Your task to perform on an android device: Add "logitech g pro" to the cart on target.com, then select checkout. Image 0: 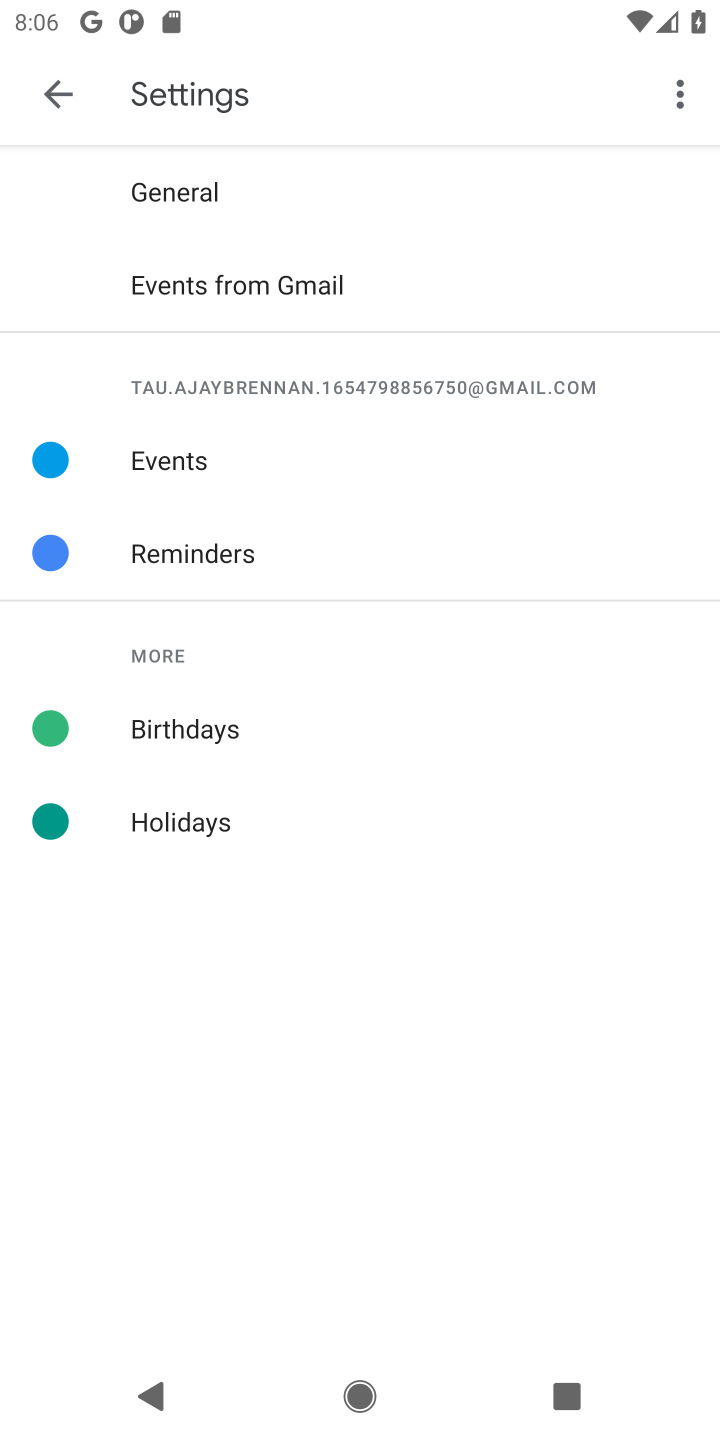
Step 0: press home button
Your task to perform on an android device: Add "logitech g pro" to the cart on target.com, then select checkout. Image 1: 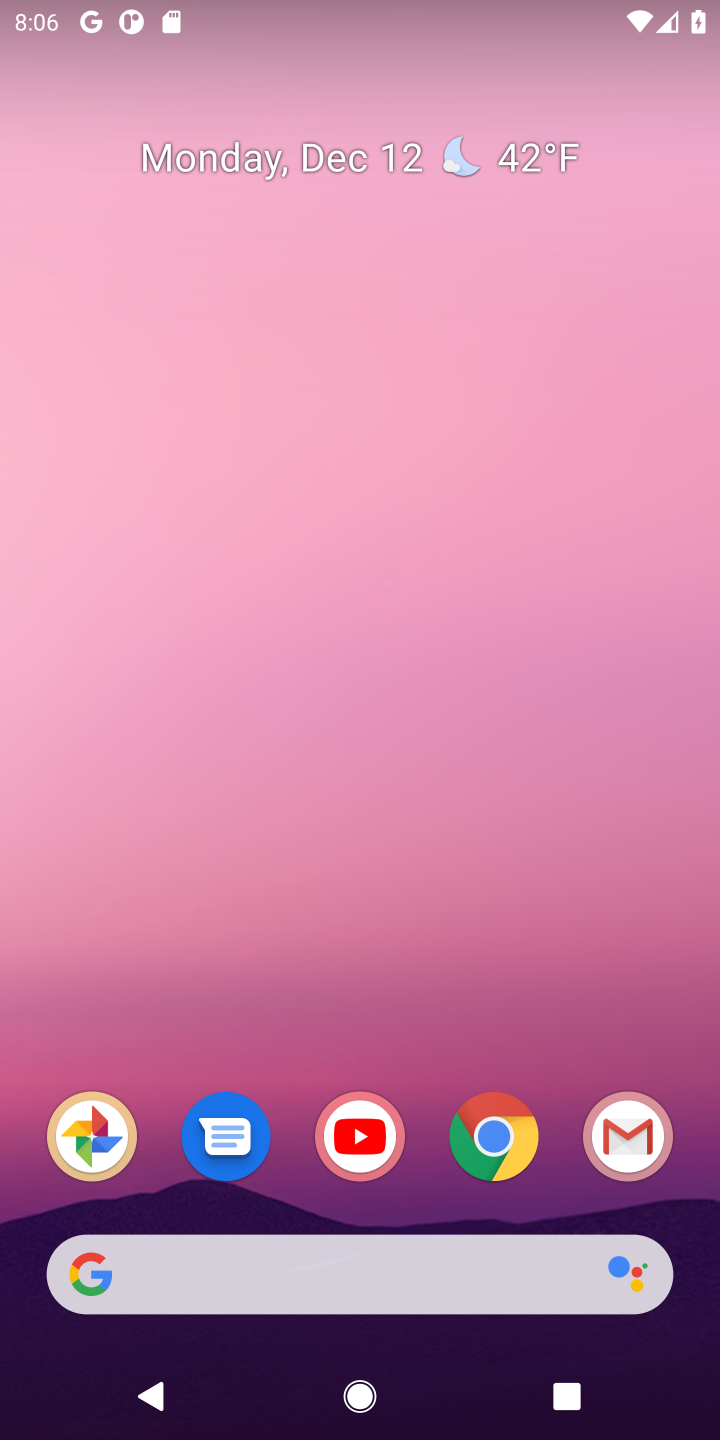
Step 1: click (502, 1144)
Your task to perform on an android device: Add "logitech g pro" to the cart on target.com, then select checkout. Image 2: 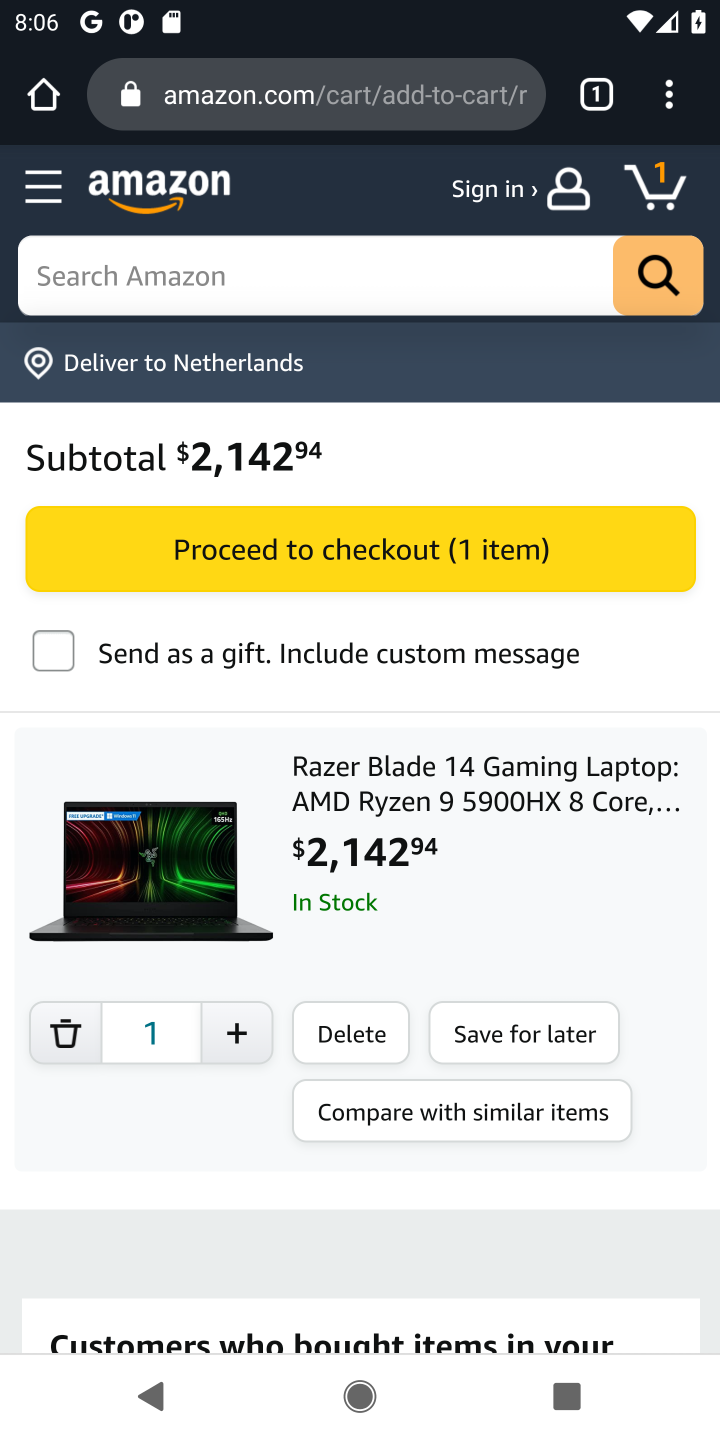
Step 2: click (262, 75)
Your task to perform on an android device: Add "logitech g pro" to the cart on target.com, then select checkout. Image 3: 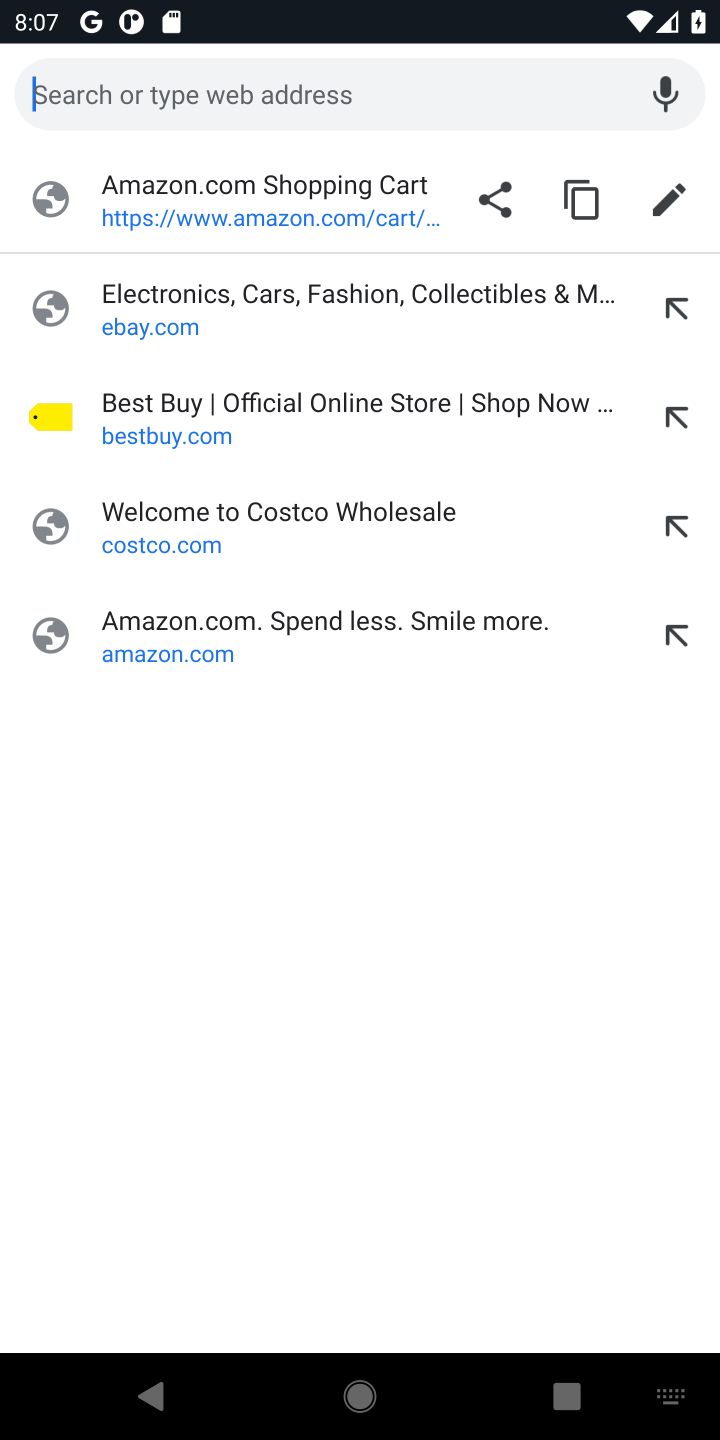
Step 3: type "target.com"
Your task to perform on an android device: Add "logitech g pro" to the cart on target.com, then select checkout. Image 4: 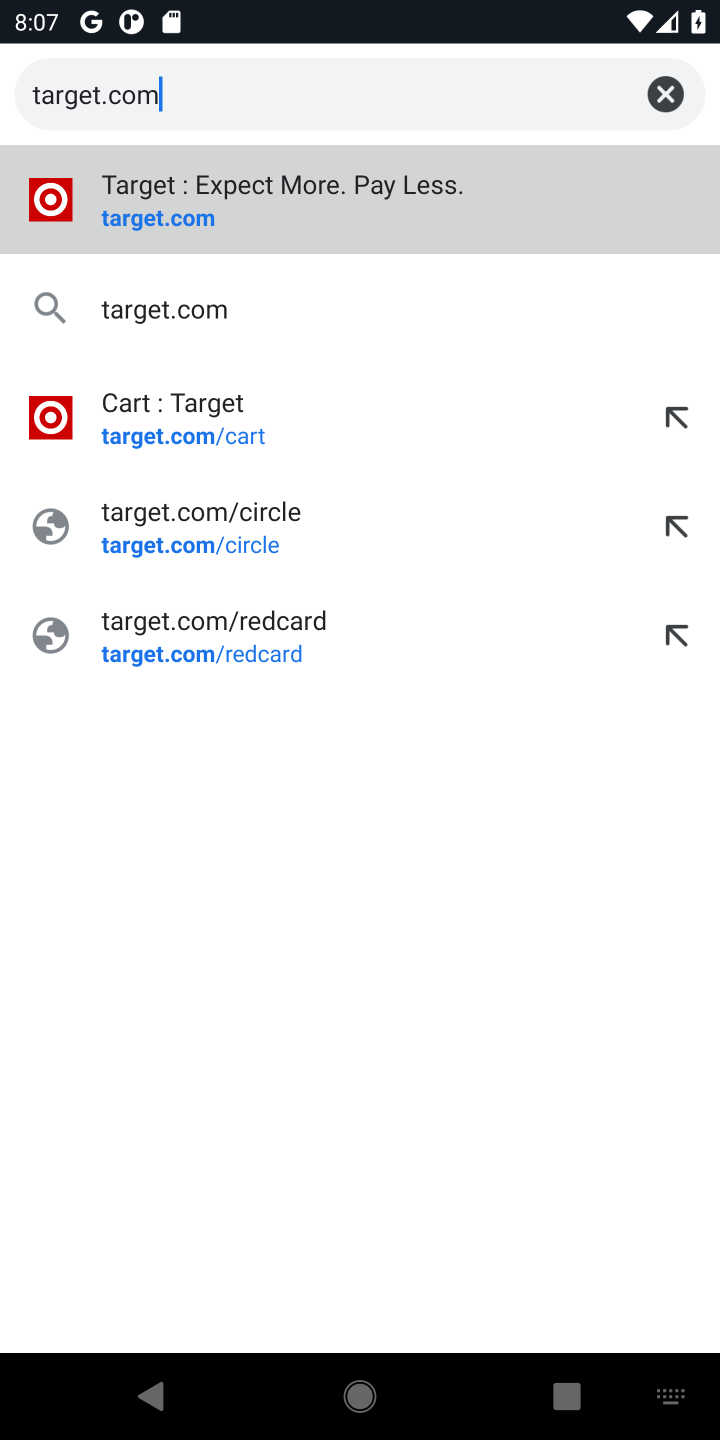
Step 4: click (134, 219)
Your task to perform on an android device: Add "logitech g pro" to the cart on target.com, then select checkout. Image 5: 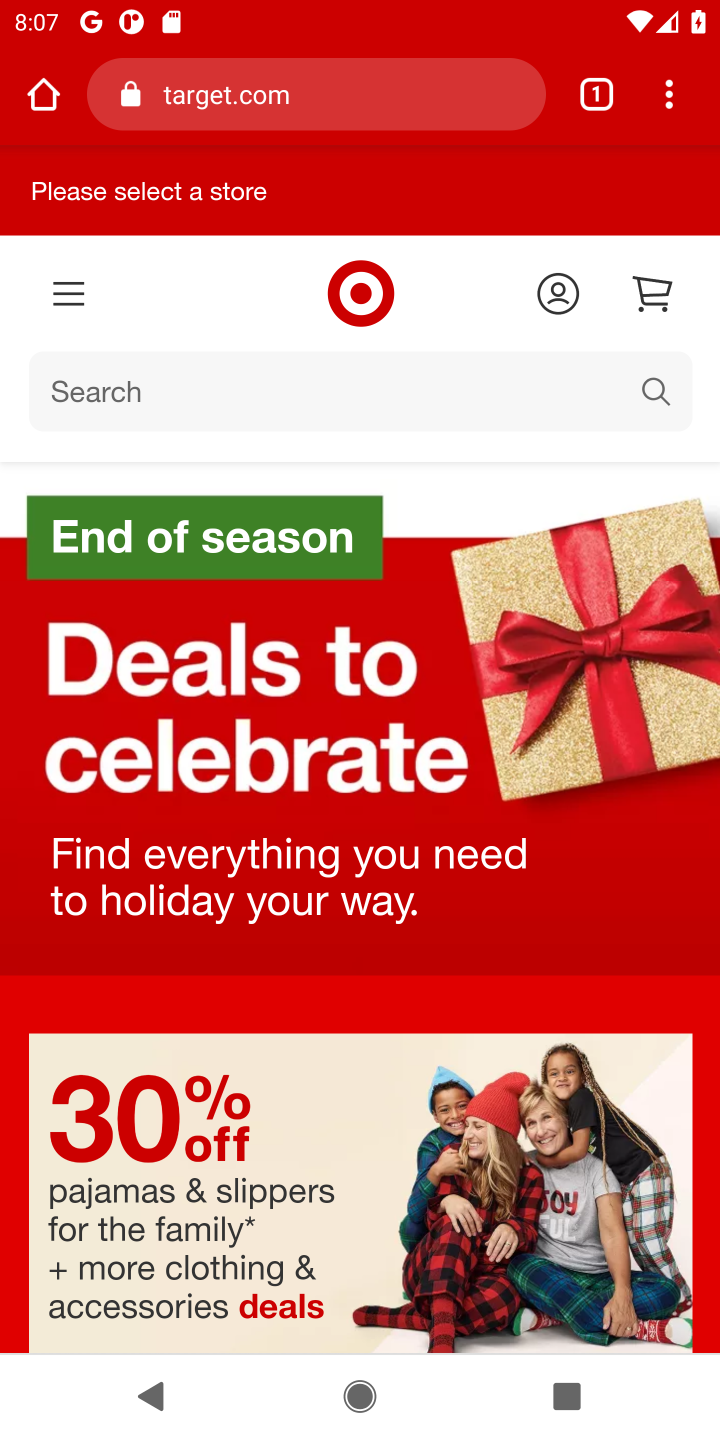
Step 5: click (97, 384)
Your task to perform on an android device: Add "logitech g pro" to the cart on target.com, then select checkout. Image 6: 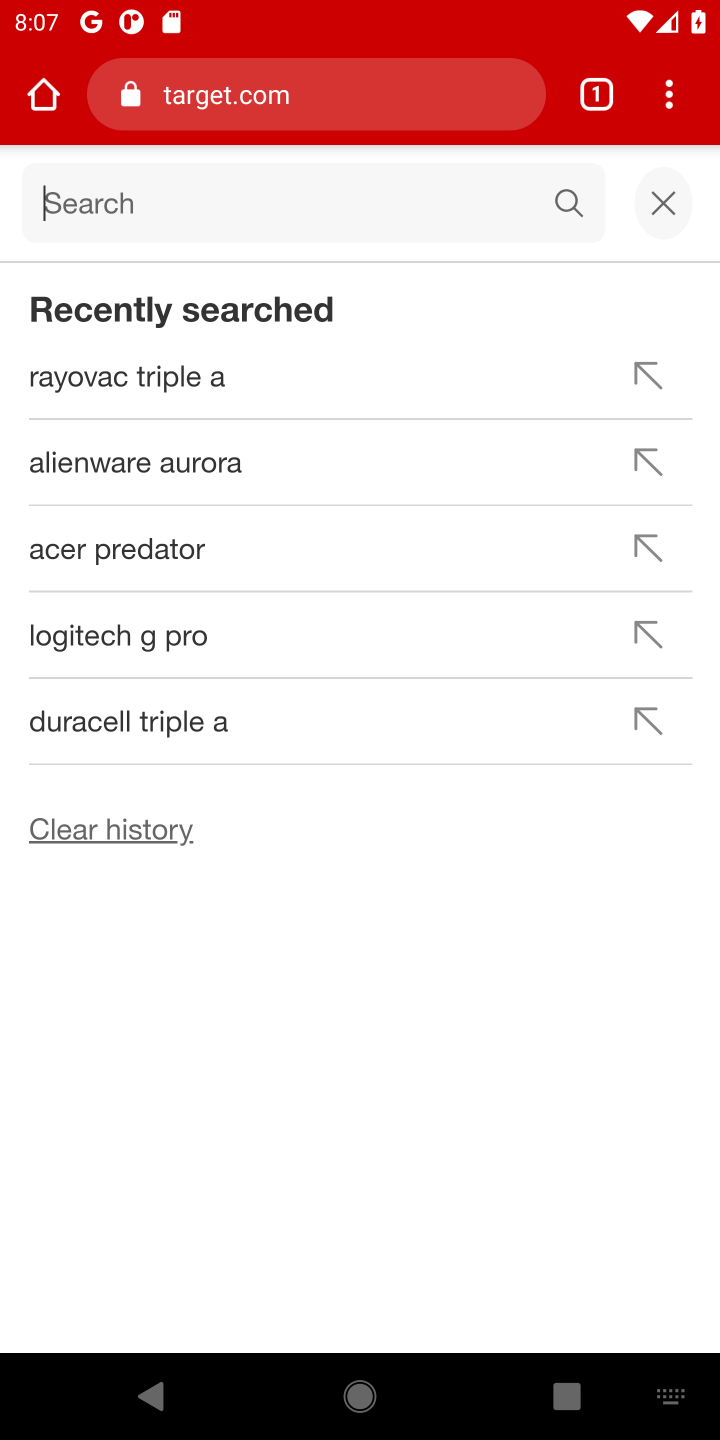
Step 6: type "logitech g pro"
Your task to perform on an android device: Add "logitech g pro" to the cart on target.com, then select checkout. Image 7: 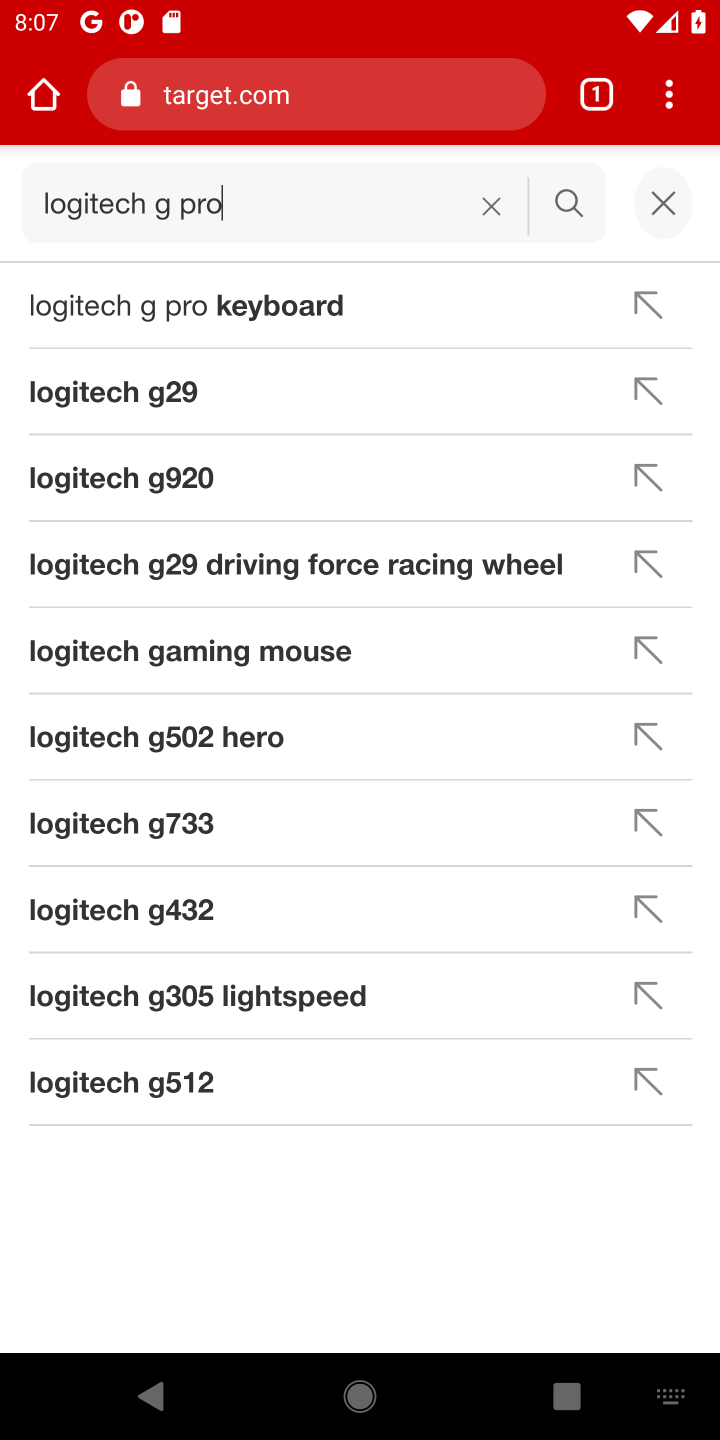
Step 7: click (574, 209)
Your task to perform on an android device: Add "logitech g pro" to the cart on target.com, then select checkout. Image 8: 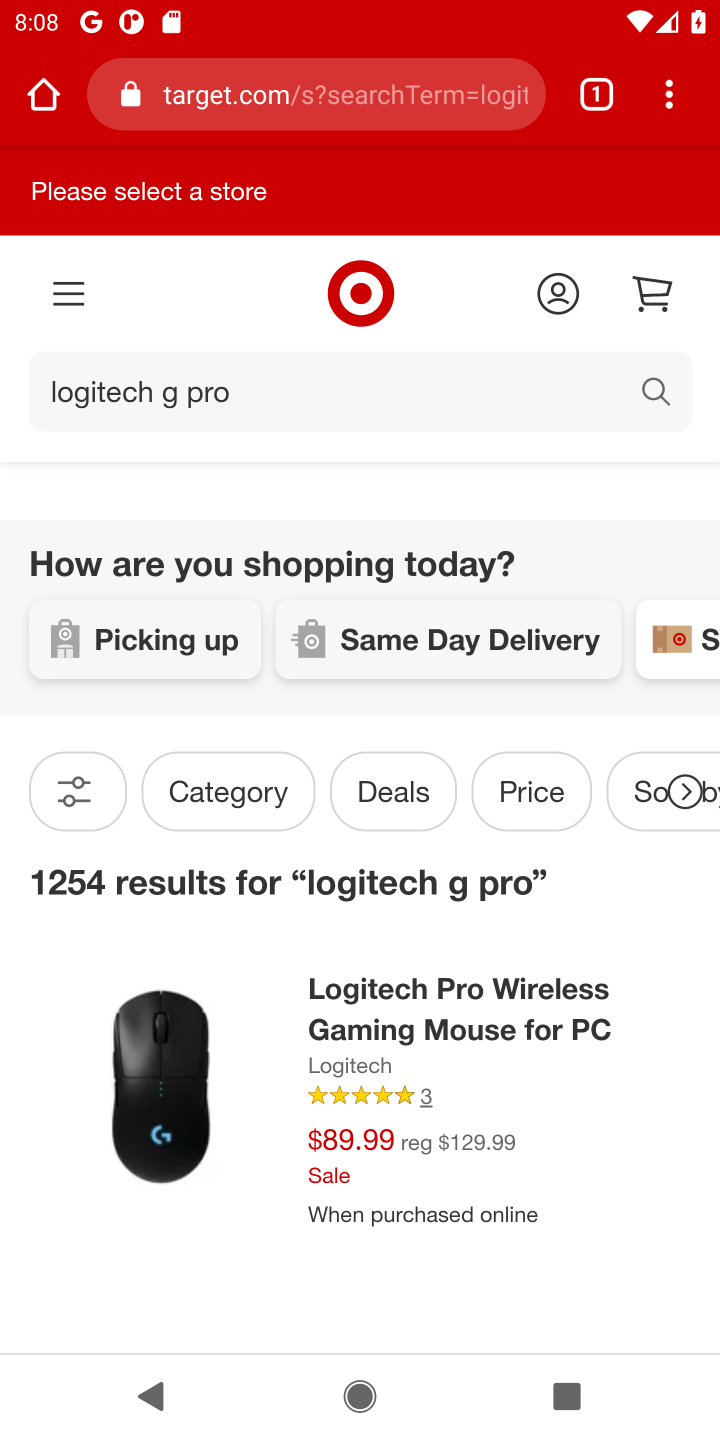
Step 8: task complete